Your task to perform on an android device: What is the recent news? Image 0: 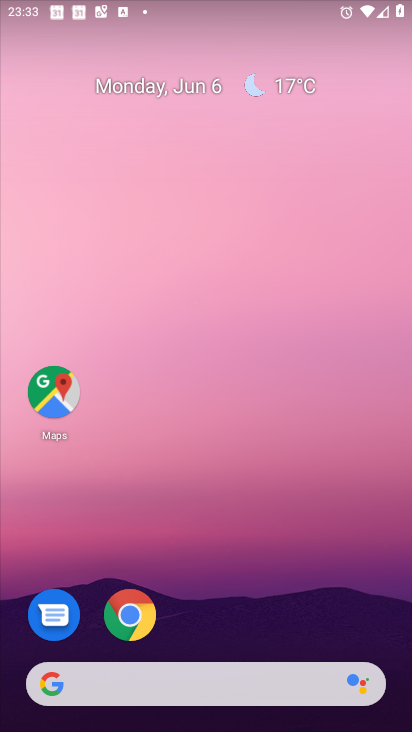
Step 0: drag from (373, 595) to (299, 54)
Your task to perform on an android device: What is the recent news? Image 1: 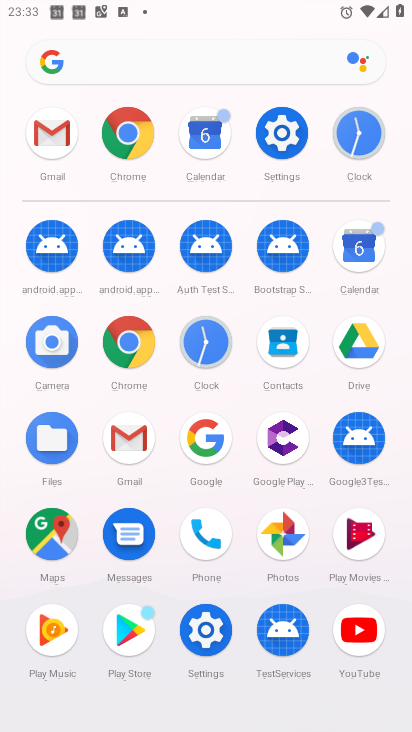
Step 1: task complete